Your task to perform on an android device: turn on the 12-hour format for clock Image 0: 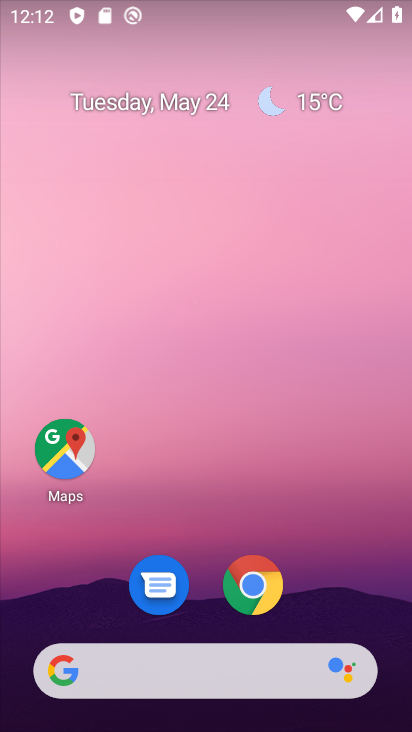
Step 0: drag from (257, 504) to (298, 35)
Your task to perform on an android device: turn on the 12-hour format for clock Image 1: 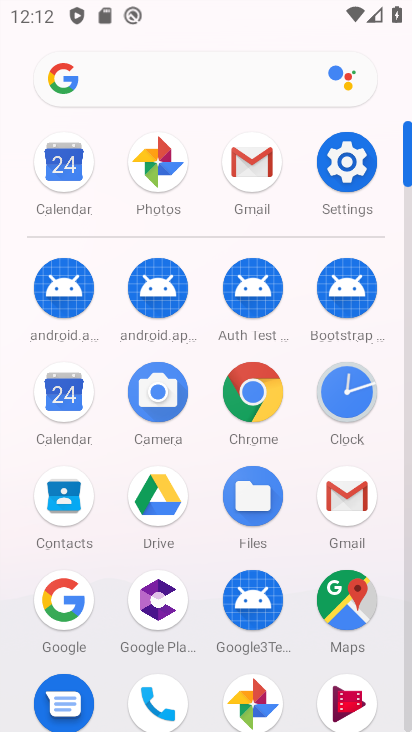
Step 1: click (340, 387)
Your task to perform on an android device: turn on the 12-hour format for clock Image 2: 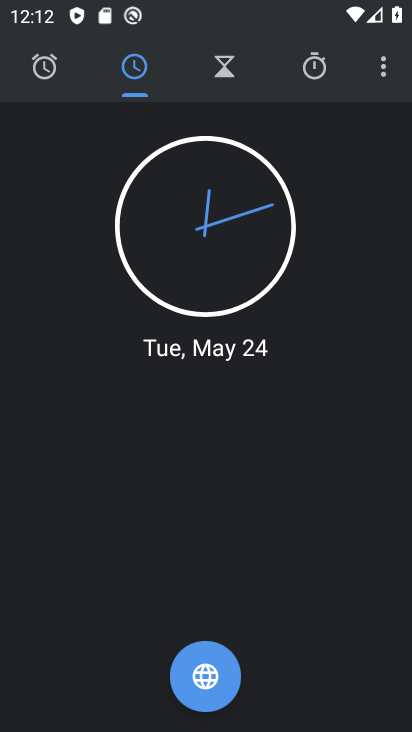
Step 2: click (387, 64)
Your task to perform on an android device: turn on the 12-hour format for clock Image 3: 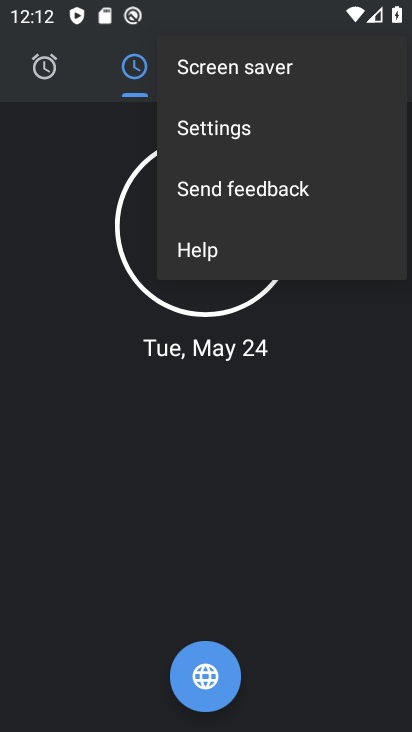
Step 3: click (314, 133)
Your task to perform on an android device: turn on the 12-hour format for clock Image 4: 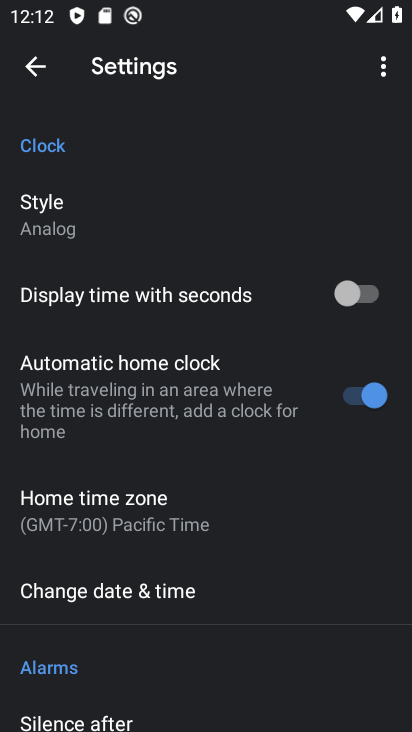
Step 4: click (247, 590)
Your task to perform on an android device: turn on the 12-hour format for clock Image 5: 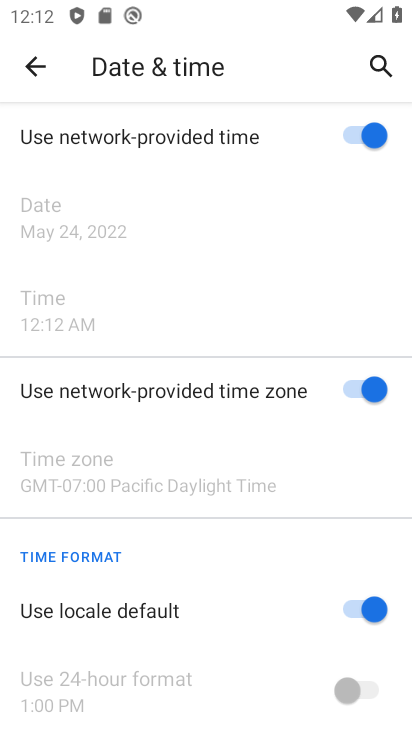
Step 5: task complete